Your task to perform on an android device: find photos in the google photos app Image 0: 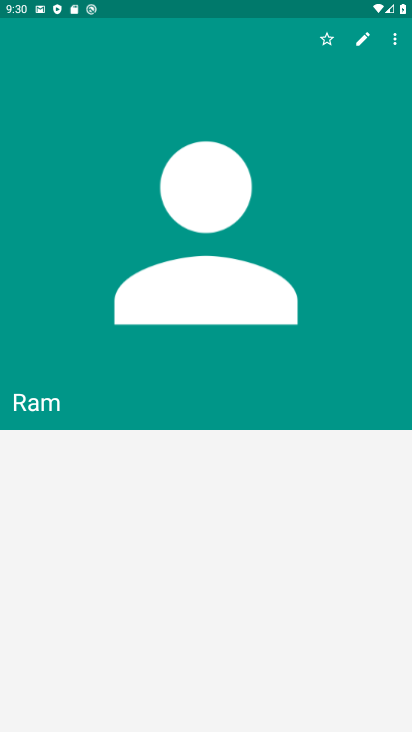
Step 0: drag from (167, 339) to (213, 61)
Your task to perform on an android device: find photos in the google photos app Image 1: 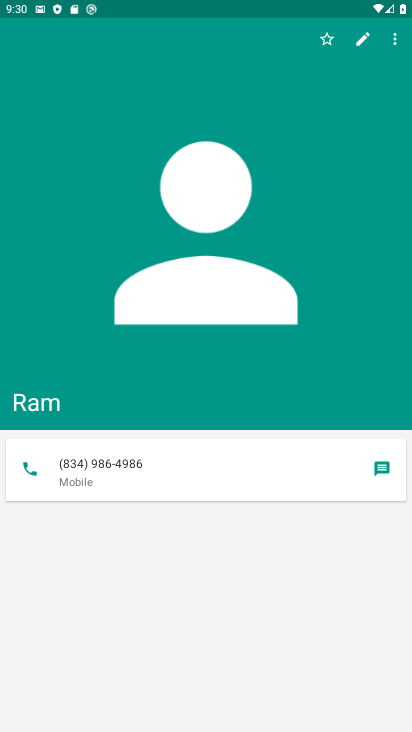
Step 1: press home button
Your task to perform on an android device: find photos in the google photos app Image 2: 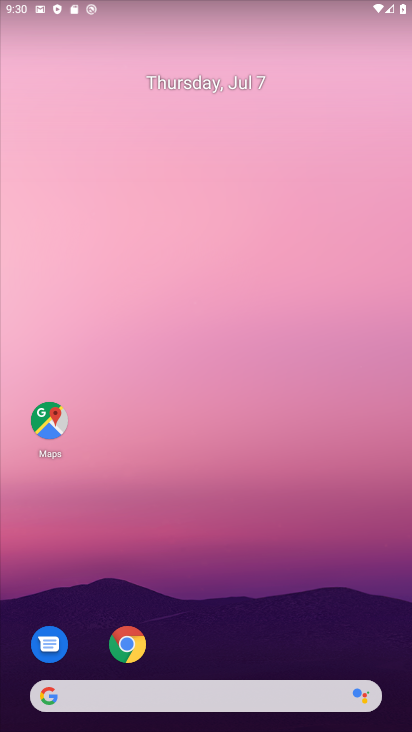
Step 2: drag from (192, 540) to (206, 14)
Your task to perform on an android device: find photos in the google photos app Image 3: 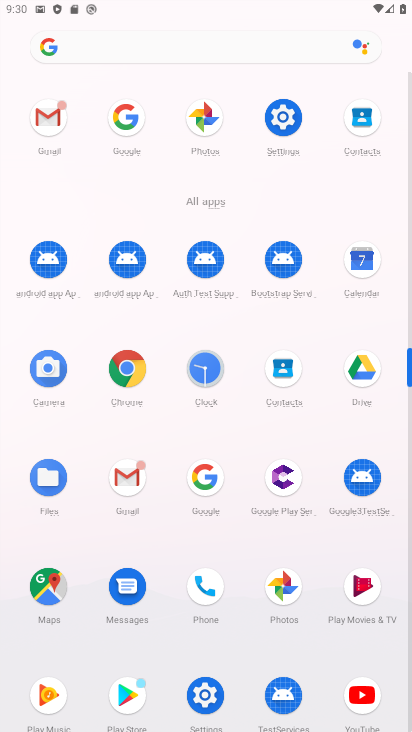
Step 3: click (281, 594)
Your task to perform on an android device: find photos in the google photos app Image 4: 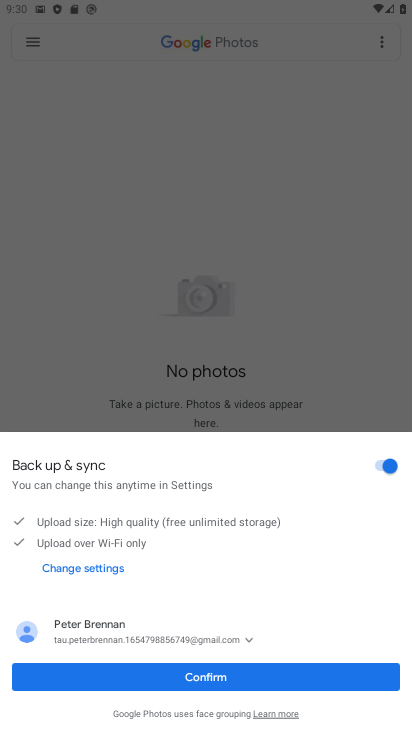
Step 4: click (202, 669)
Your task to perform on an android device: find photos in the google photos app Image 5: 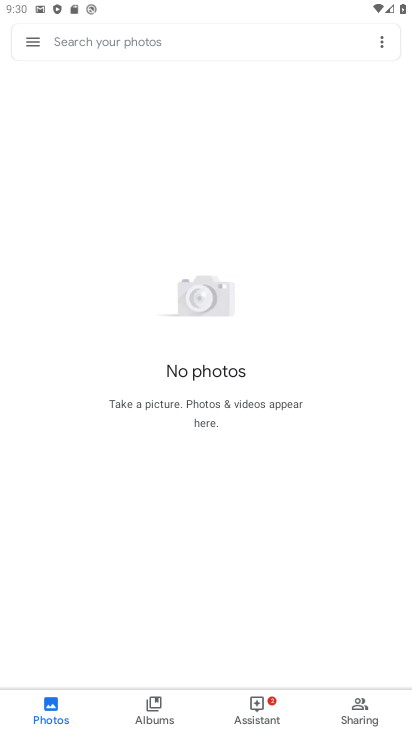
Step 5: click (146, 709)
Your task to perform on an android device: find photos in the google photos app Image 6: 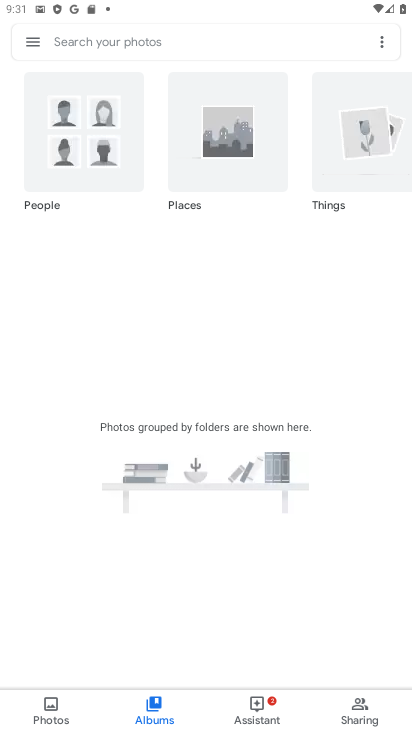
Step 6: task complete